Your task to perform on an android device: Open internet settings Image 0: 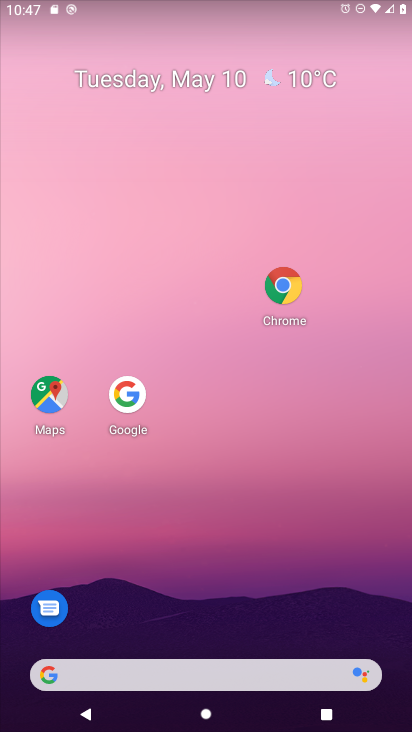
Step 0: drag from (141, 679) to (282, 120)
Your task to perform on an android device: Open internet settings Image 1: 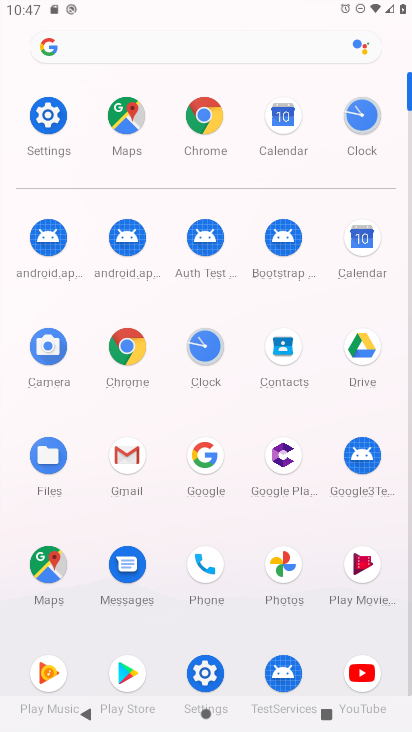
Step 1: click (48, 117)
Your task to perform on an android device: Open internet settings Image 2: 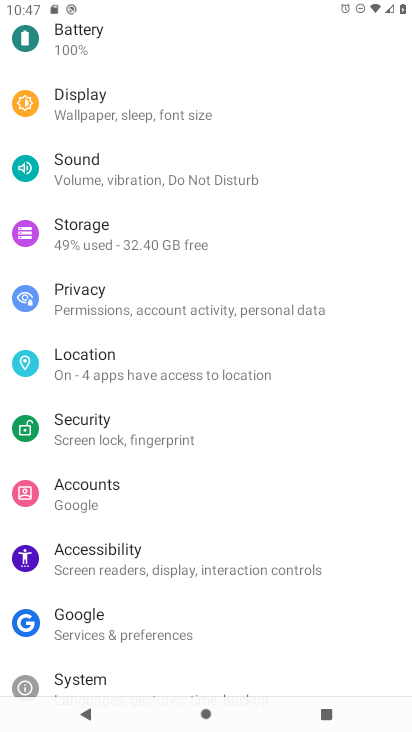
Step 2: drag from (220, 58) to (230, 476)
Your task to perform on an android device: Open internet settings Image 3: 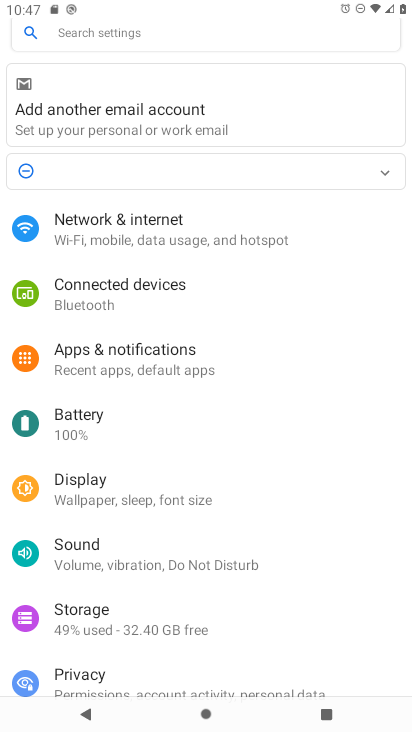
Step 3: click (162, 235)
Your task to perform on an android device: Open internet settings Image 4: 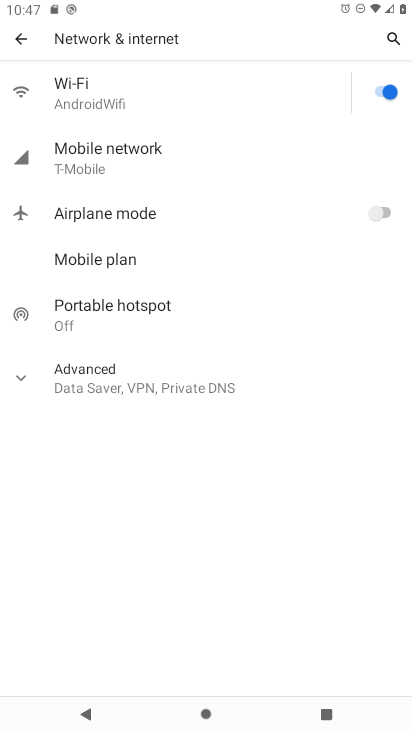
Step 4: task complete